Your task to perform on an android device: What's on my calendar for the rest of the week? Image 0: 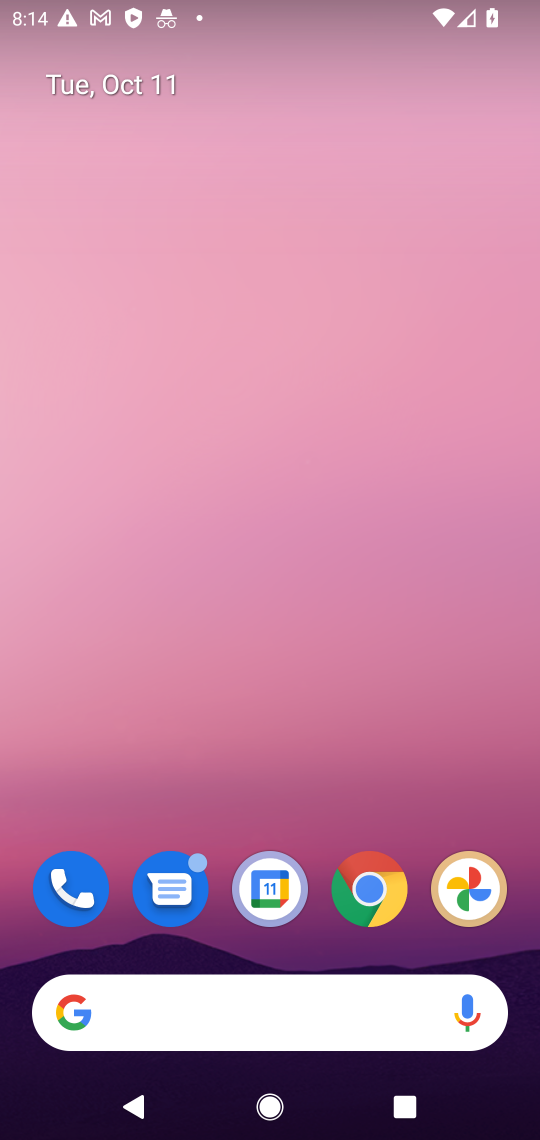
Step 0: click (214, 1027)
Your task to perform on an android device: What's on my calendar for the rest of the week? Image 1: 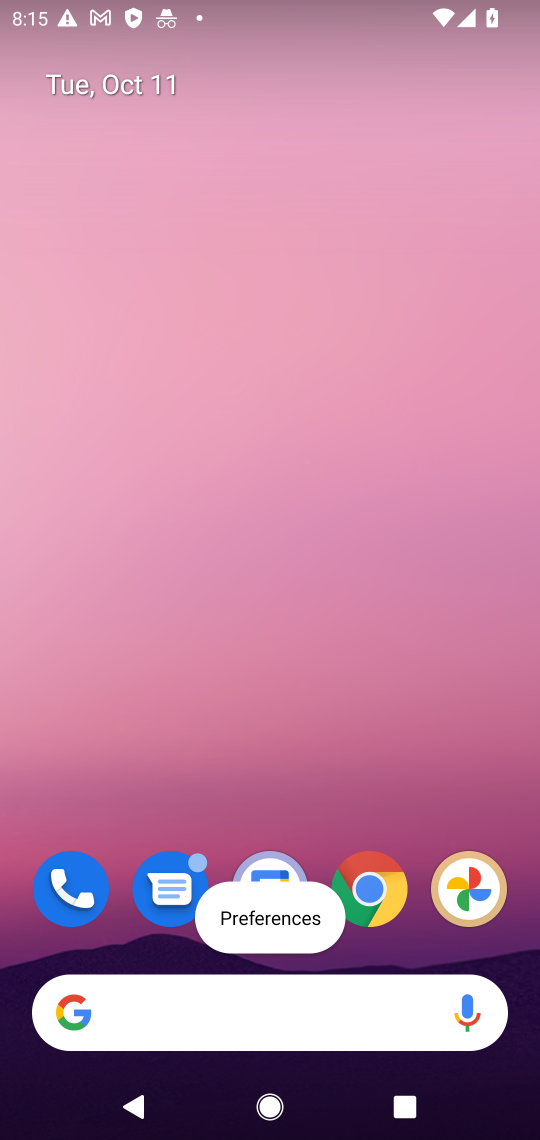
Step 1: click (244, 1013)
Your task to perform on an android device: What's on my calendar for the rest of the week? Image 2: 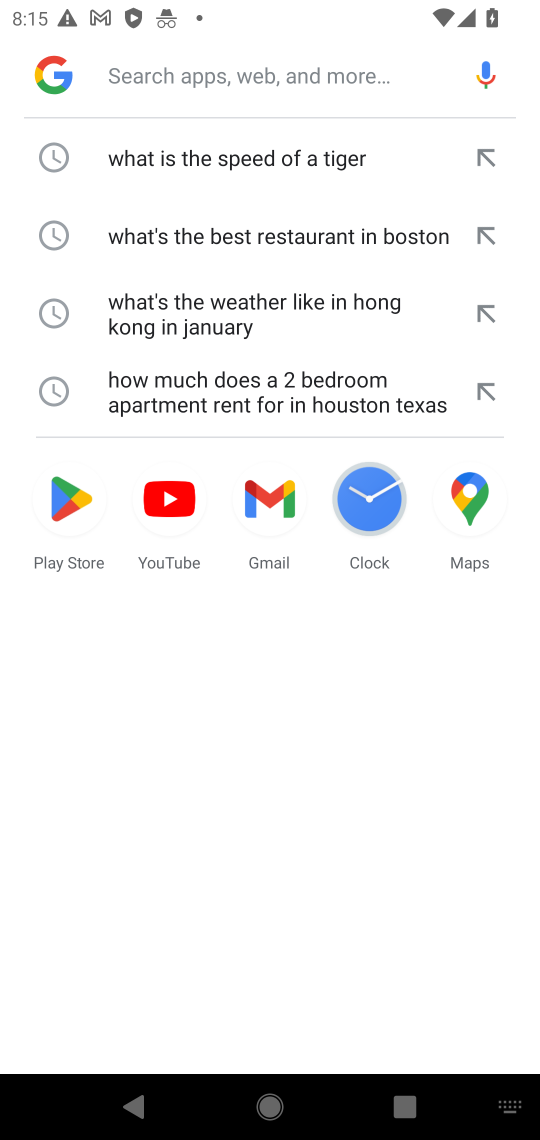
Step 2: click (163, 83)
Your task to perform on an android device: What's on my calendar for the rest of the week? Image 3: 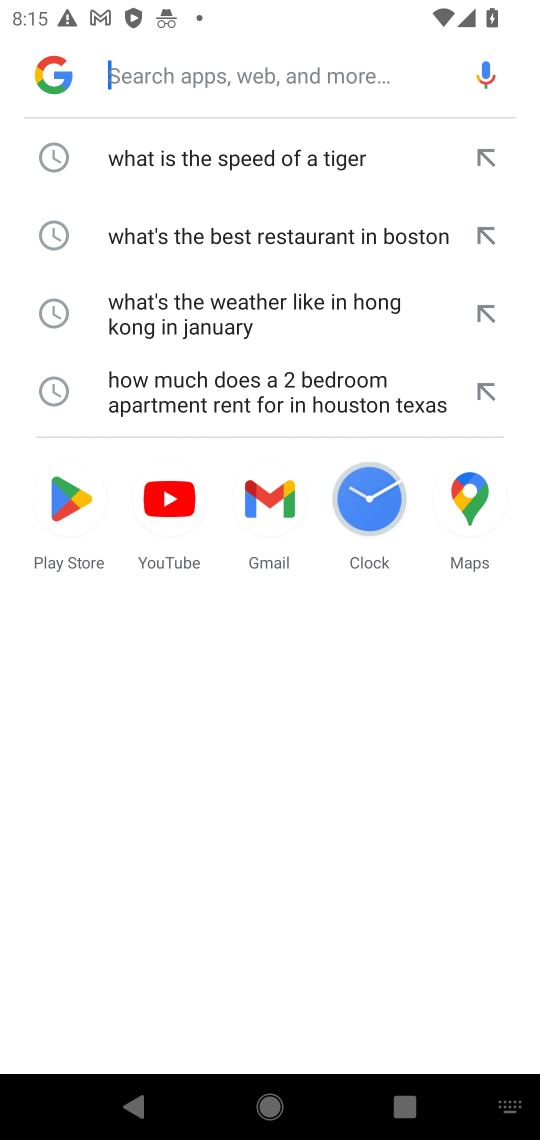
Step 3: type "What's on my calendar for the rest of the week?"
Your task to perform on an android device: What's on my calendar for the rest of the week? Image 4: 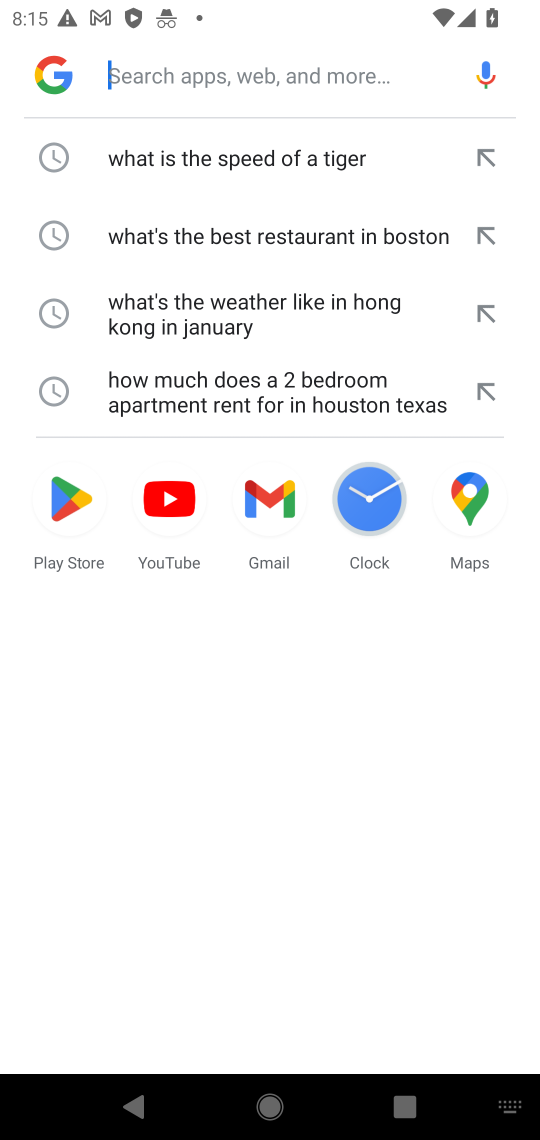
Step 4: click (312, 761)
Your task to perform on an android device: What's on my calendar for the rest of the week? Image 5: 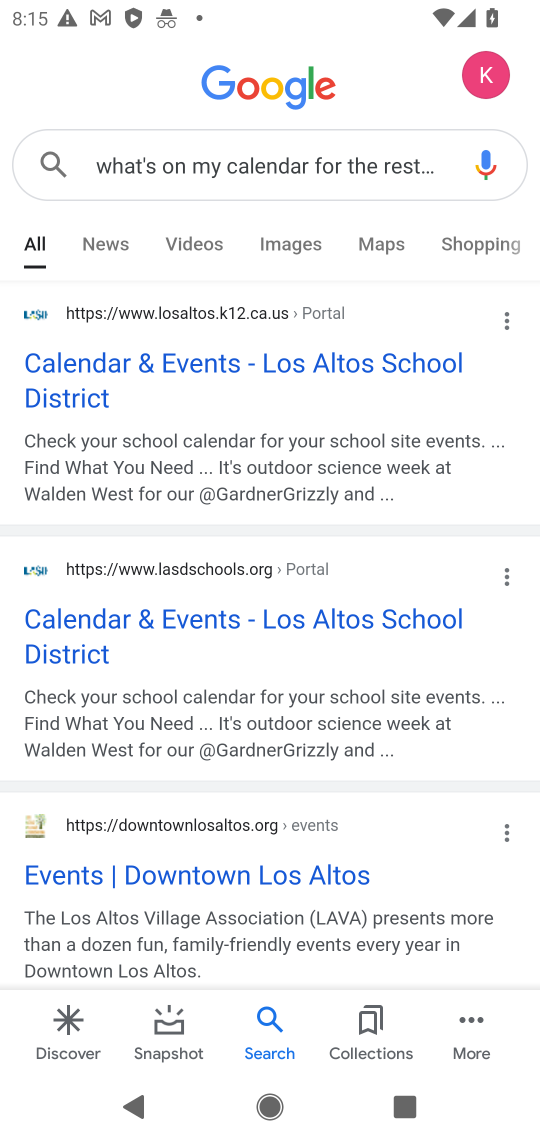
Step 5: press home button
Your task to perform on an android device: What's on my calendar for the rest of the week? Image 6: 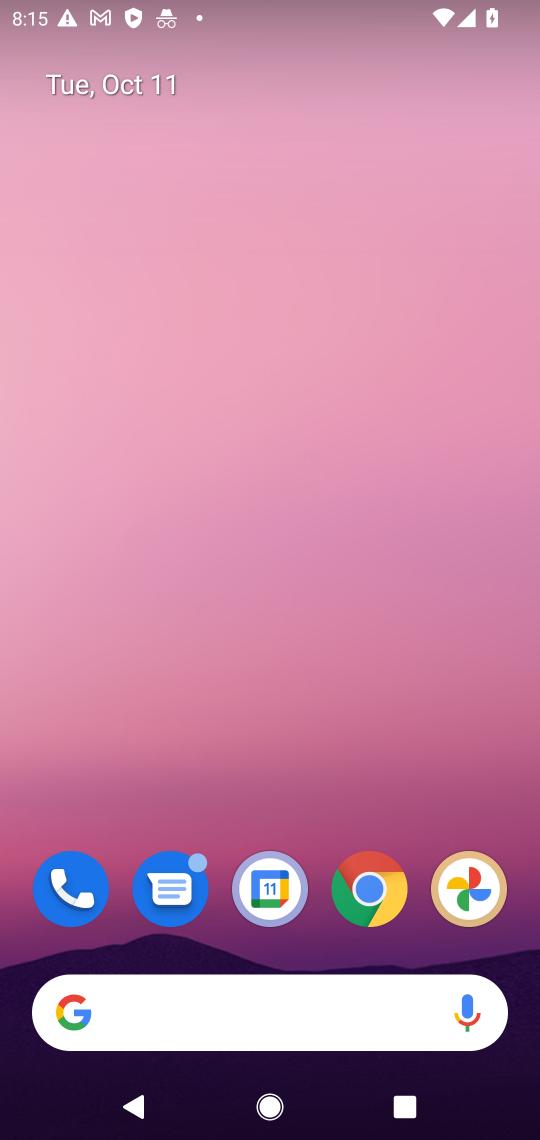
Step 6: click (274, 889)
Your task to perform on an android device: What's on my calendar for the rest of the week? Image 7: 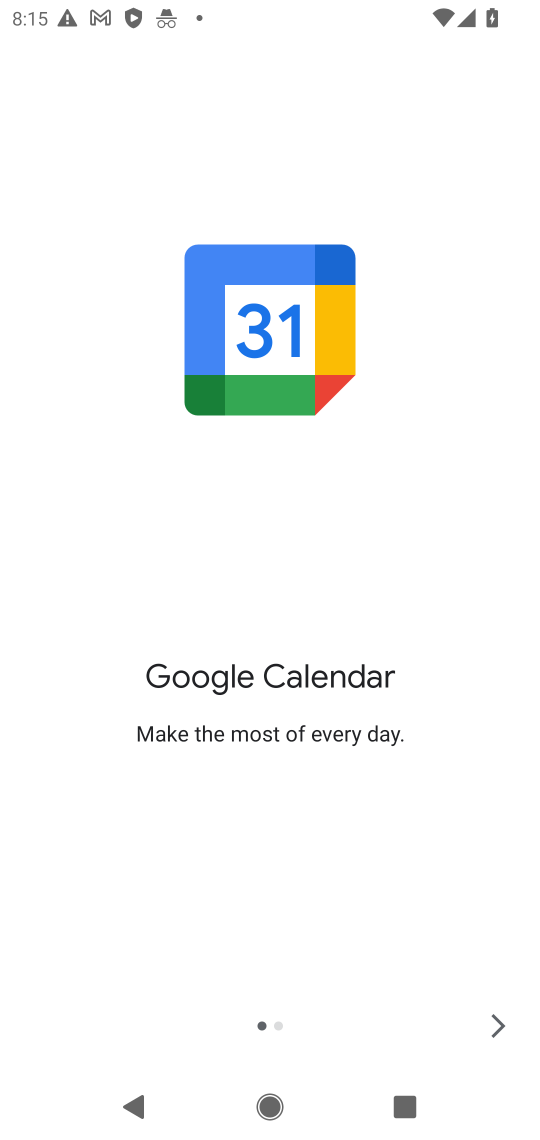
Step 7: click (495, 1031)
Your task to perform on an android device: What's on my calendar for the rest of the week? Image 8: 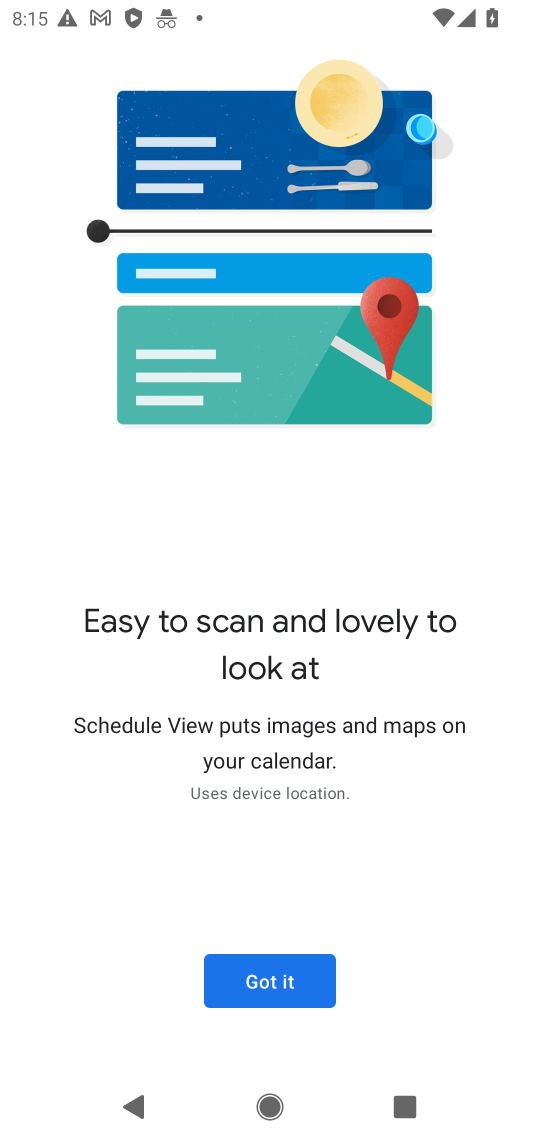
Step 8: click (287, 973)
Your task to perform on an android device: What's on my calendar for the rest of the week? Image 9: 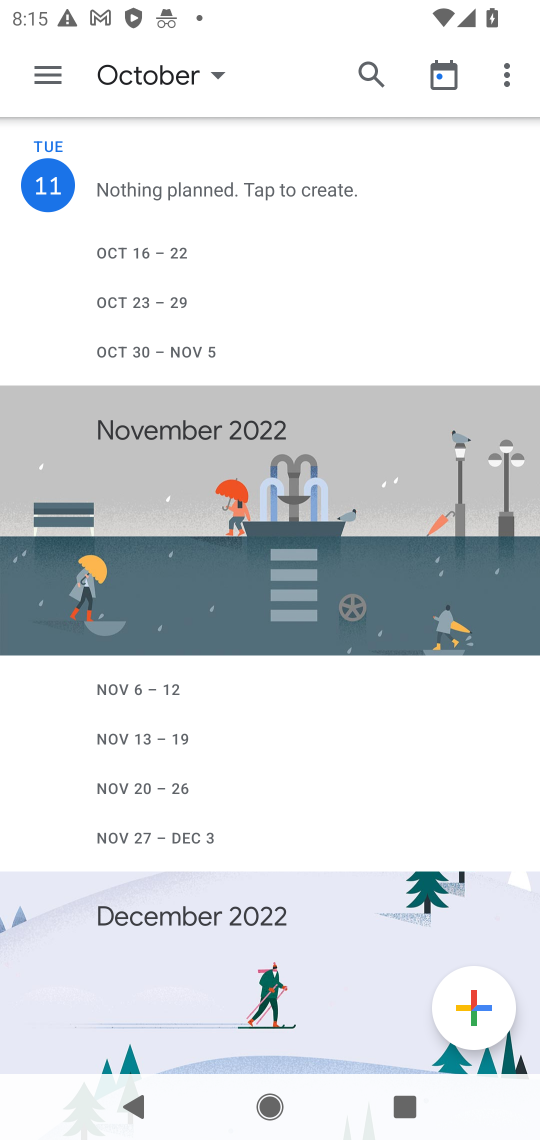
Step 9: task complete